Your task to perform on an android device: Play the last video I watched on Youtube Image 0: 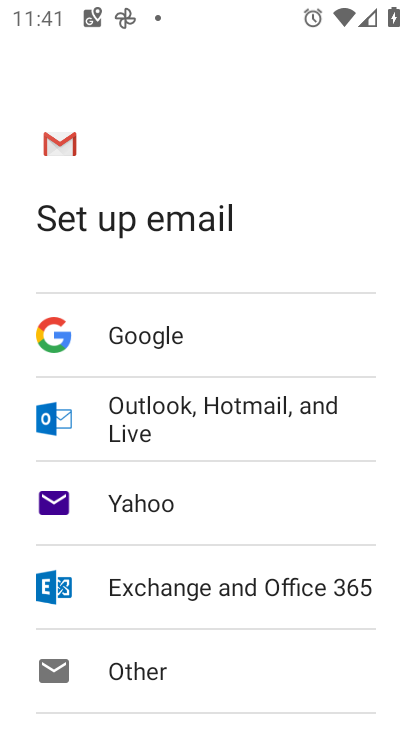
Step 0: press home button
Your task to perform on an android device: Play the last video I watched on Youtube Image 1: 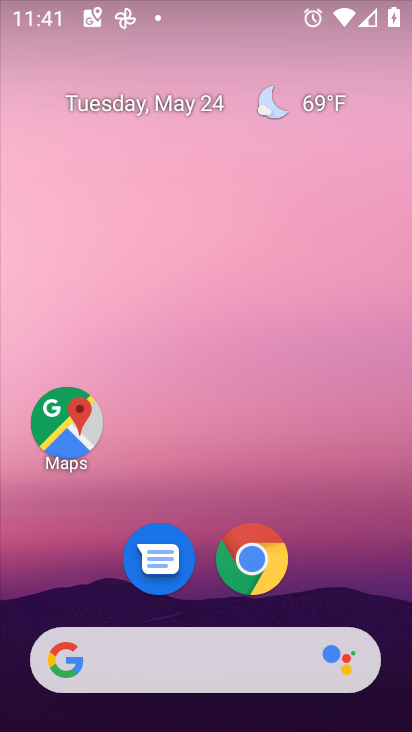
Step 1: drag from (397, 652) to (224, 13)
Your task to perform on an android device: Play the last video I watched on Youtube Image 2: 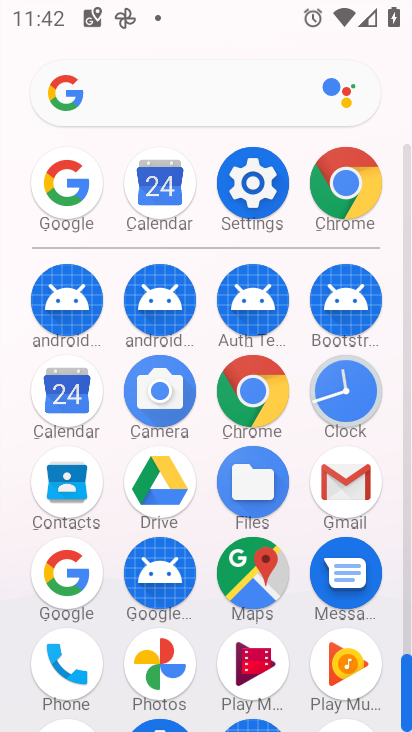
Step 2: drag from (292, 608) to (310, 117)
Your task to perform on an android device: Play the last video I watched on Youtube Image 3: 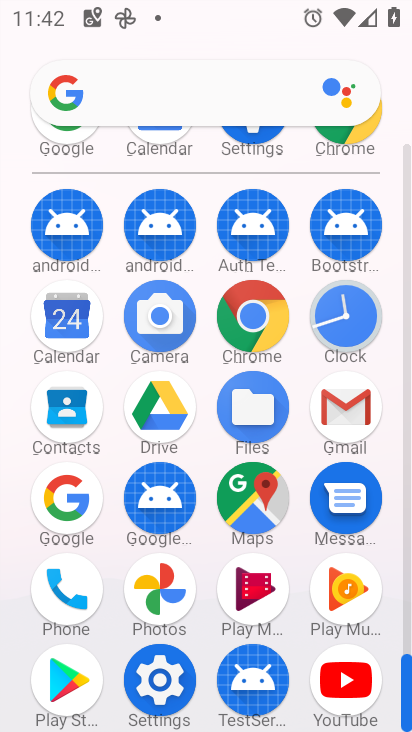
Step 3: click (347, 671)
Your task to perform on an android device: Play the last video I watched on Youtube Image 4: 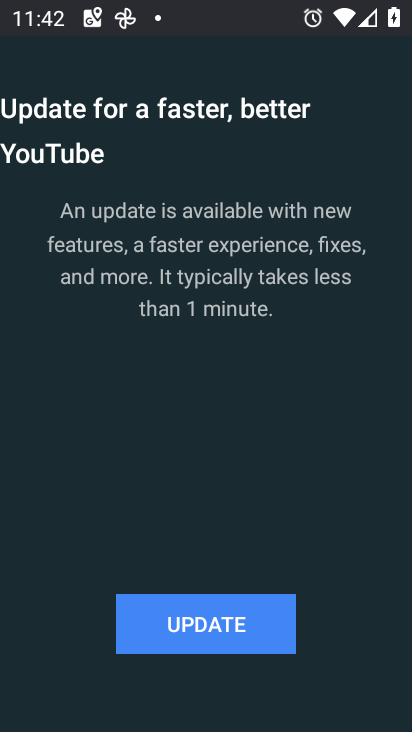
Step 4: click (187, 645)
Your task to perform on an android device: Play the last video I watched on Youtube Image 5: 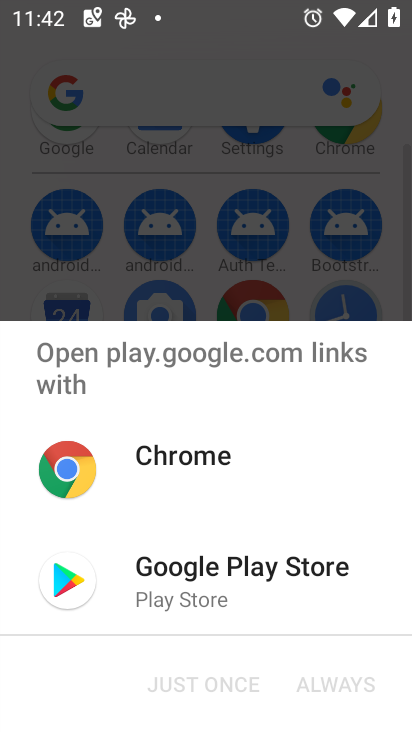
Step 5: click (173, 582)
Your task to perform on an android device: Play the last video I watched on Youtube Image 6: 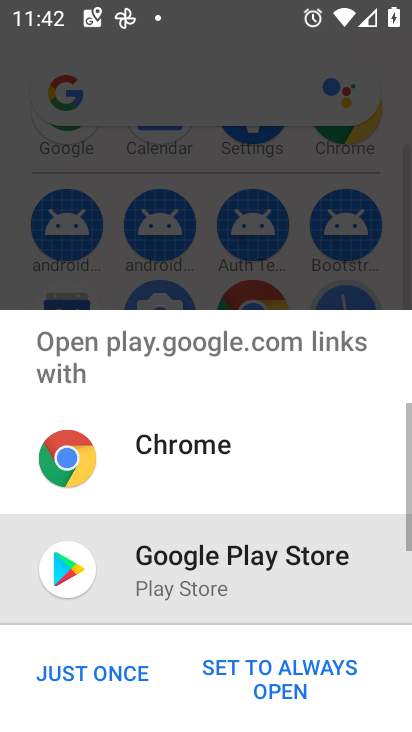
Step 6: click (110, 666)
Your task to perform on an android device: Play the last video I watched on Youtube Image 7: 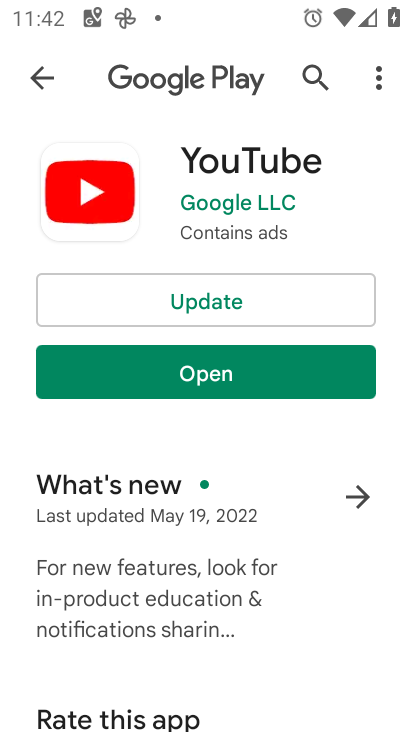
Step 7: click (228, 300)
Your task to perform on an android device: Play the last video I watched on Youtube Image 8: 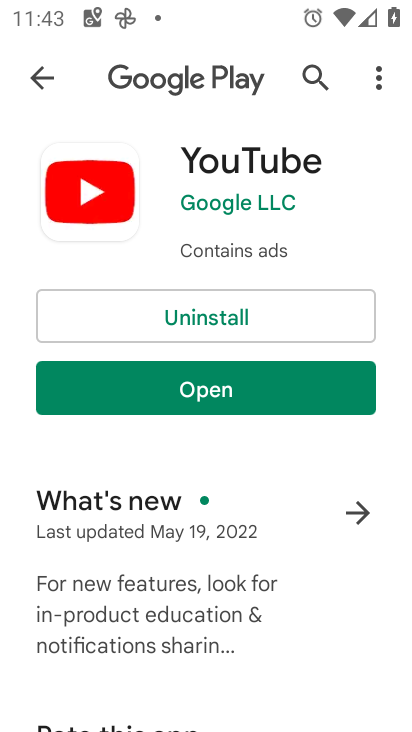
Step 8: click (312, 373)
Your task to perform on an android device: Play the last video I watched on Youtube Image 9: 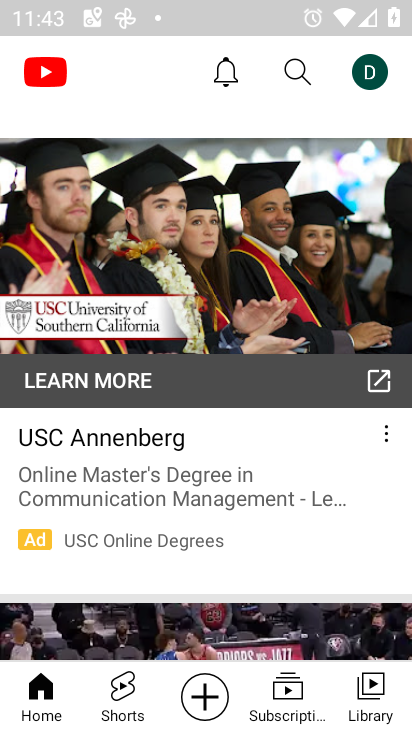
Step 9: task complete